Your task to perform on an android device: turn on priority inbox in the gmail app Image 0: 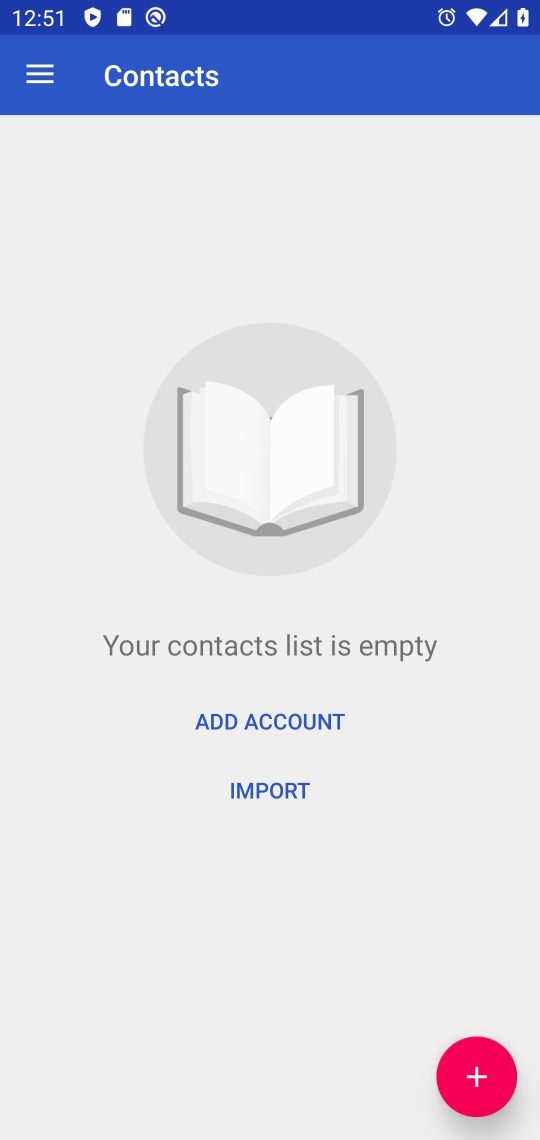
Step 0: press home button
Your task to perform on an android device: turn on priority inbox in the gmail app Image 1: 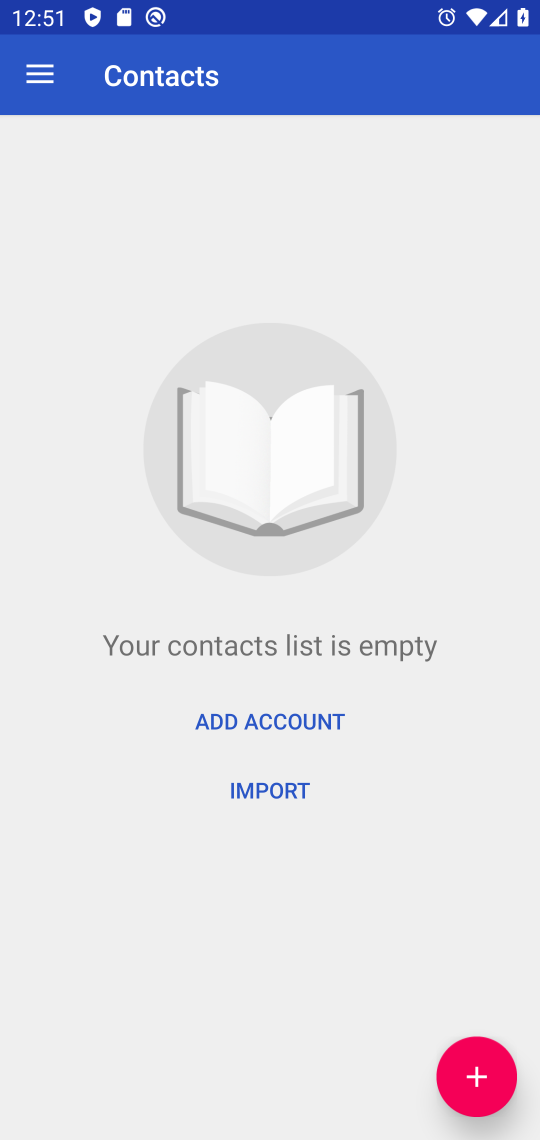
Step 1: press home button
Your task to perform on an android device: turn on priority inbox in the gmail app Image 2: 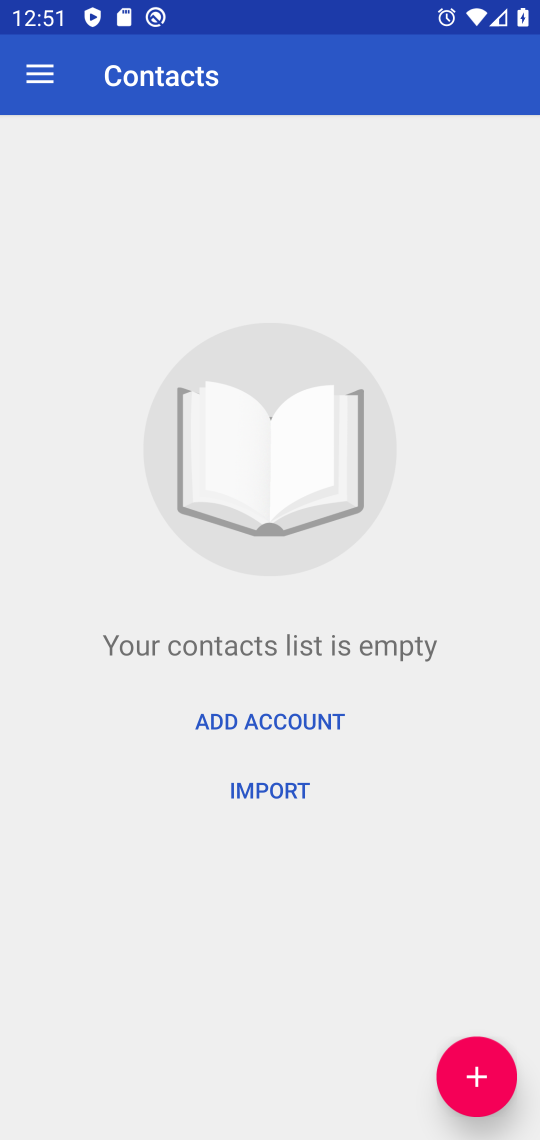
Step 2: click (318, 195)
Your task to perform on an android device: turn on priority inbox in the gmail app Image 3: 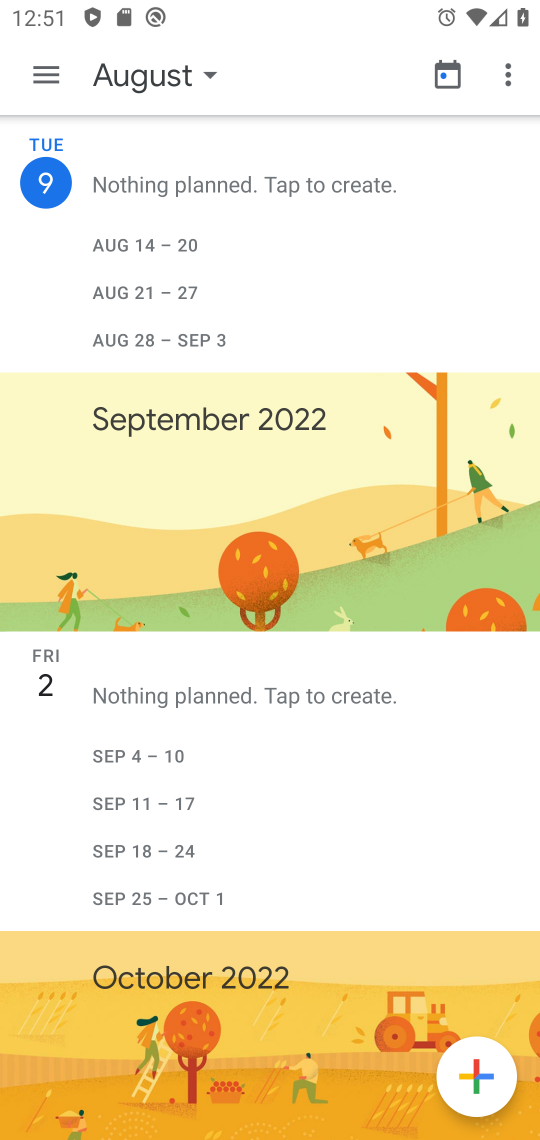
Step 3: press home button
Your task to perform on an android device: turn on priority inbox in the gmail app Image 4: 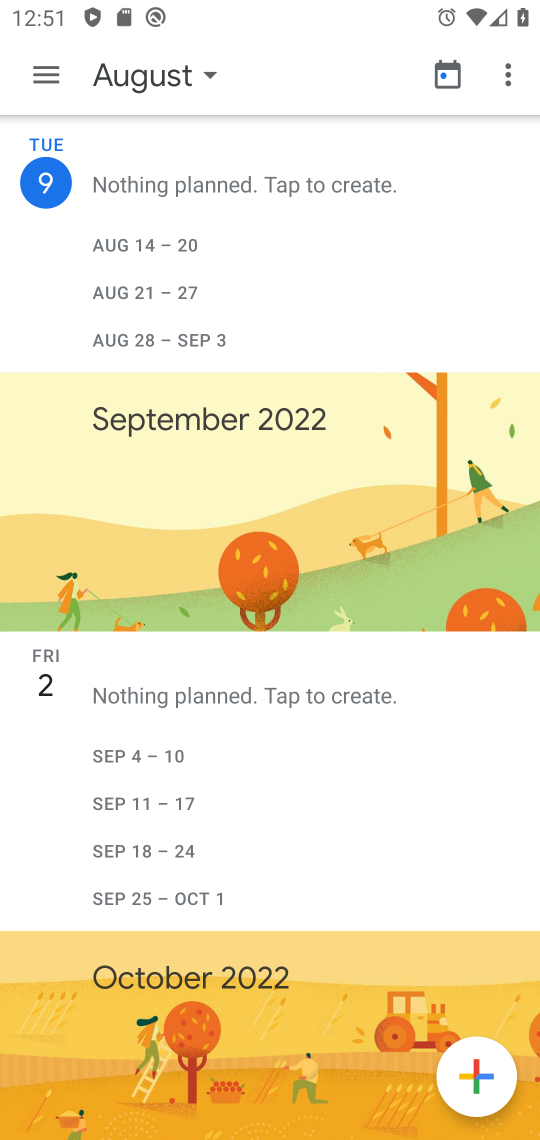
Step 4: drag from (221, 1001) to (331, 229)
Your task to perform on an android device: turn on priority inbox in the gmail app Image 5: 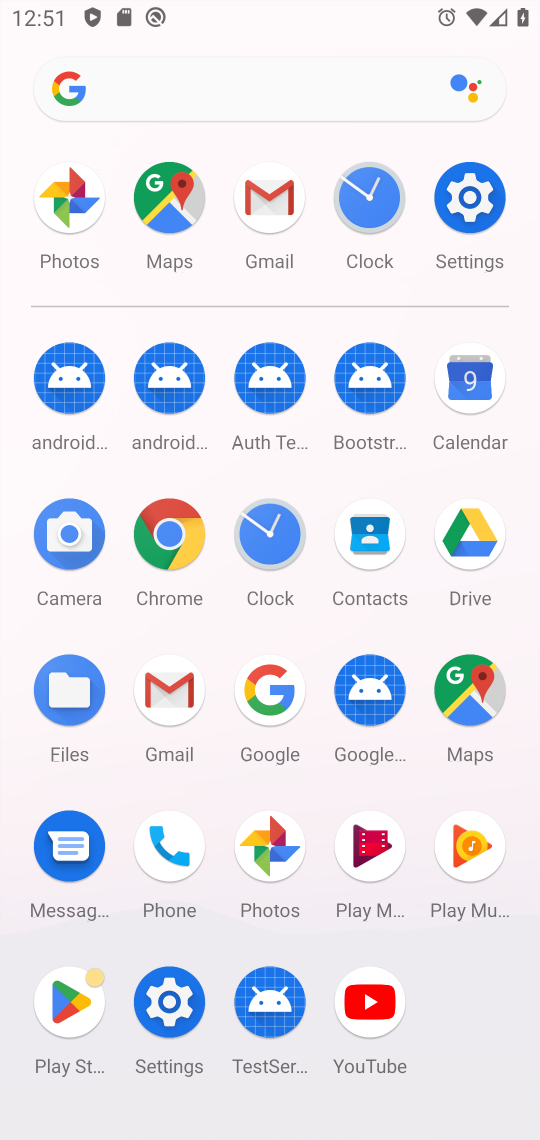
Step 5: drag from (272, 923) to (381, 148)
Your task to perform on an android device: turn on priority inbox in the gmail app Image 6: 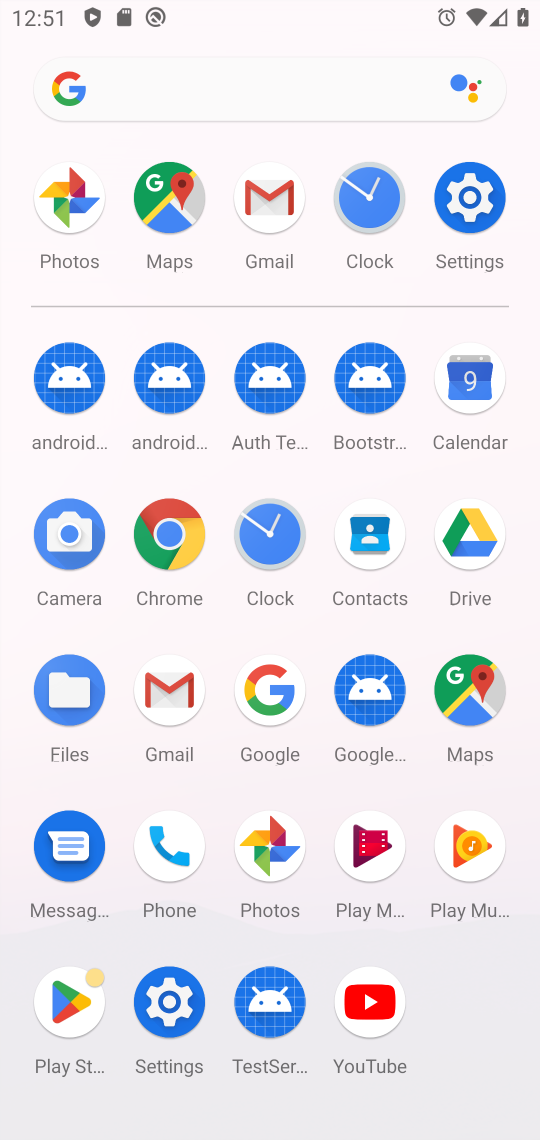
Step 6: click (171, 714)
Your task to perform on an android device: turn on priority inbox in the gmail app Image 7: 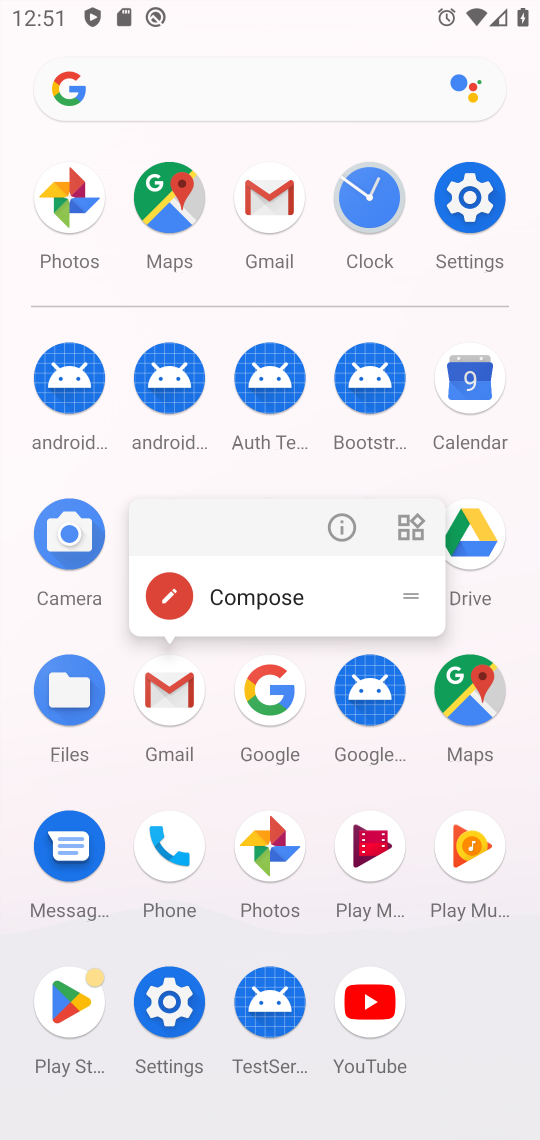
Step 7: click (331, 527)
Your task to perform on an android device: turn on priority inbox in the gmail app Image 8: 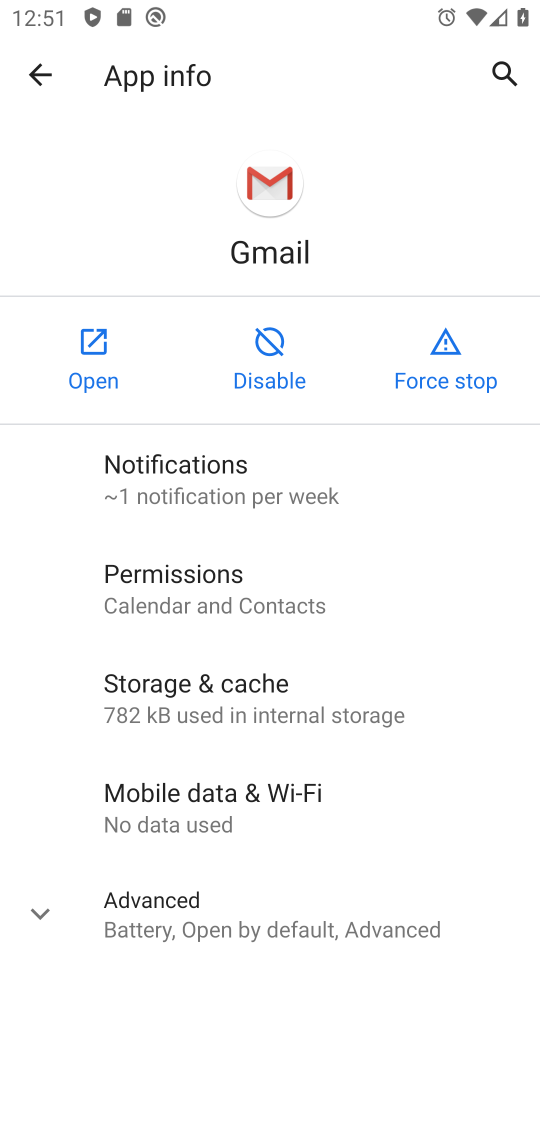
Step 8: click (79, 354)
Your task to perform on an android device: turn on priority inbox in the gmail app Image 9: 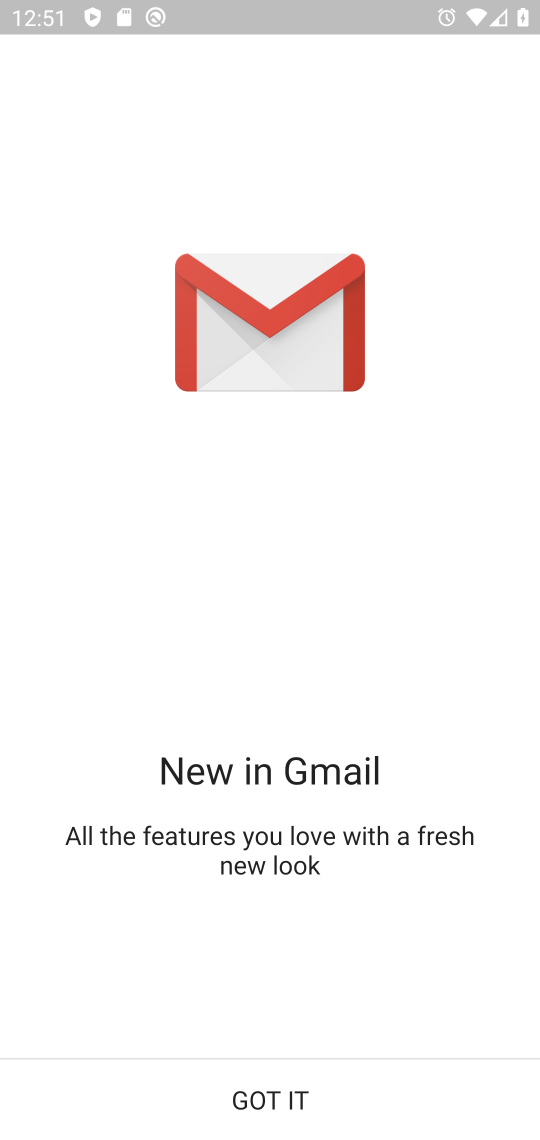
Step 9: click (304, 1117)
Your task to perform on an android device: turn on priority inbox in the gmail app Image 10: 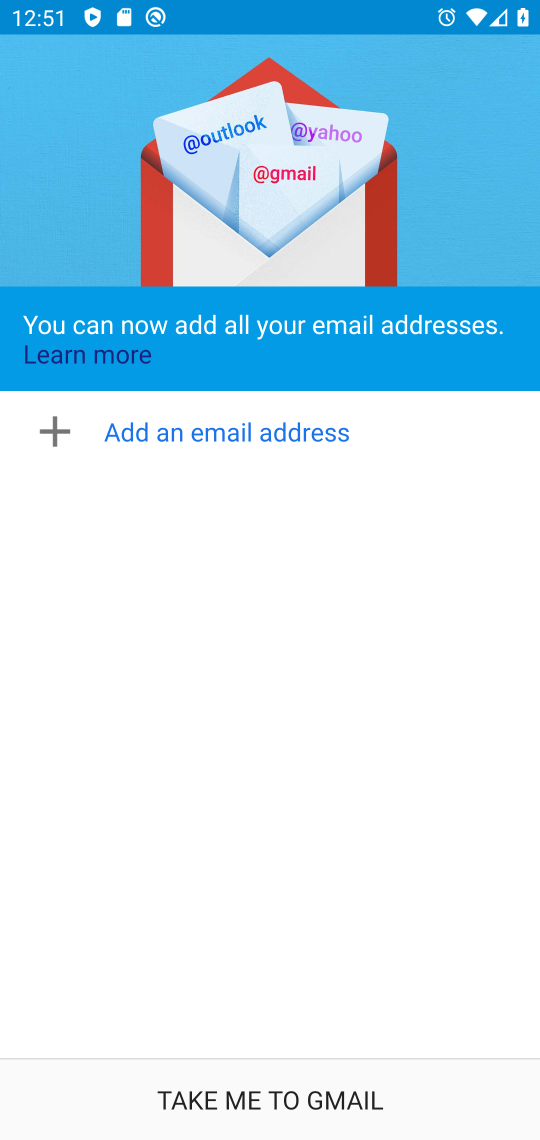
Step 10: click (272, 1091)
Your task to perform on an android device: turn on priority inbox in the gmail app Image 11: 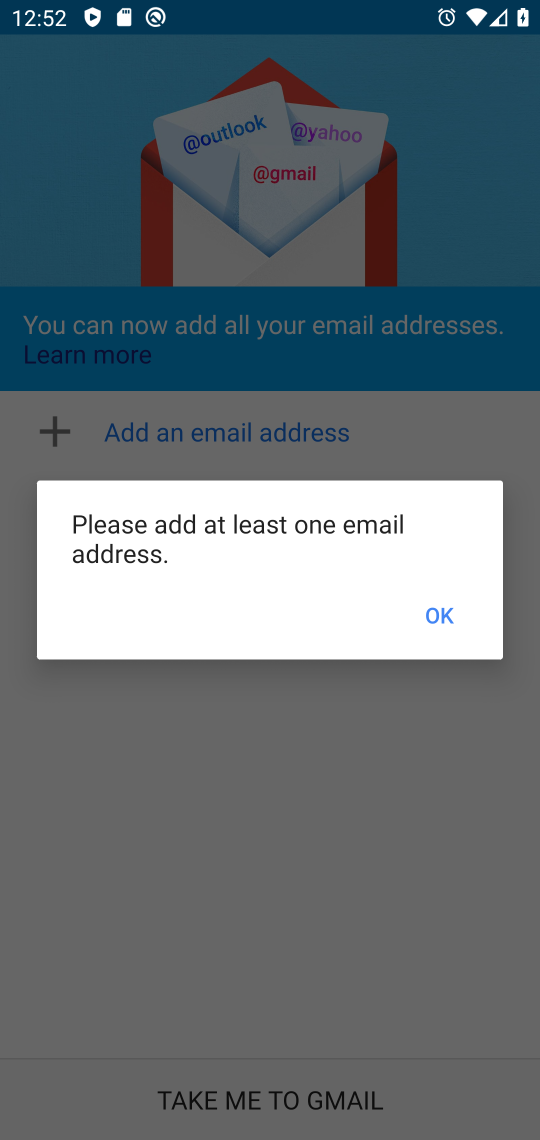
Step 11: click (446, 611)
Your task to perform on an android device: turn on priority inbox in the gmail app Image 12: 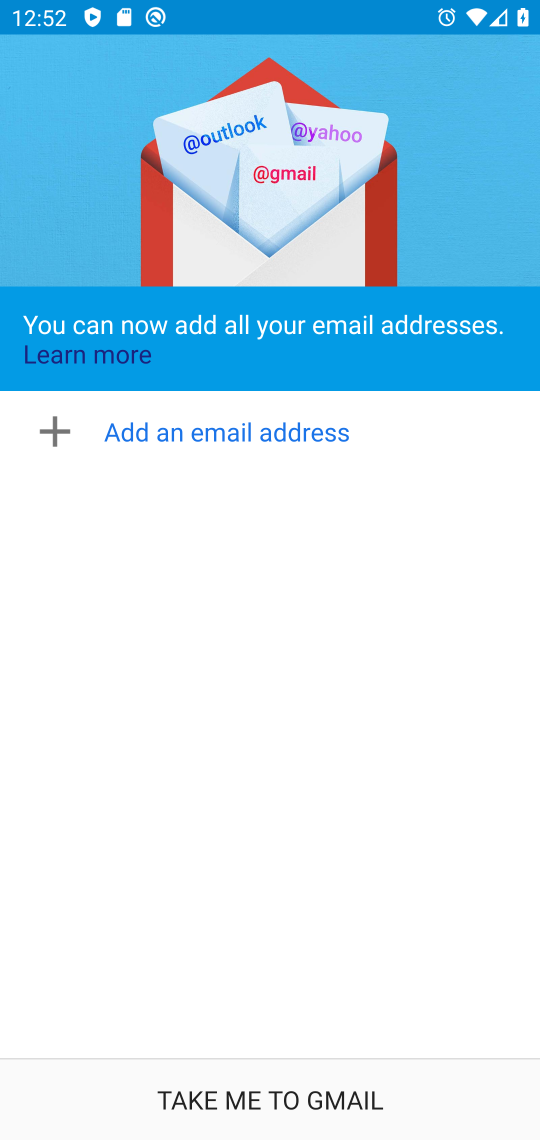
Step 12: click (228, 1092)
Your task to perform on an android device: turn on priority inbox in the gmail app Image 13: 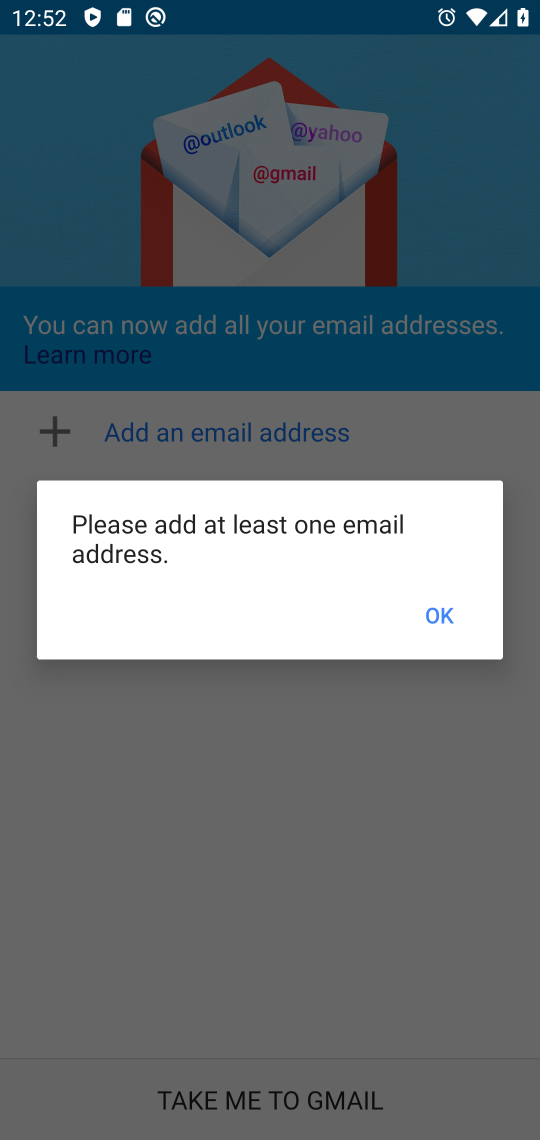
Step 13: click (411, 599)
Your task to perform on an android device: turn on priority inbox in the gmail app Image 14: 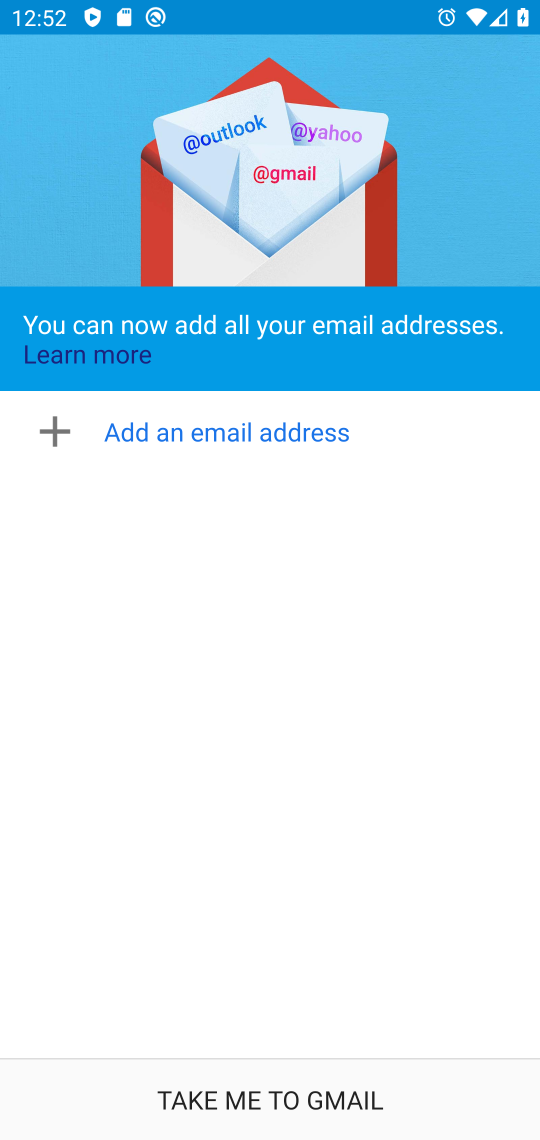
Step 14: click (255, 1110)
Your task to perform on an android device: turn on priority inbox in the gmail app Image 15: 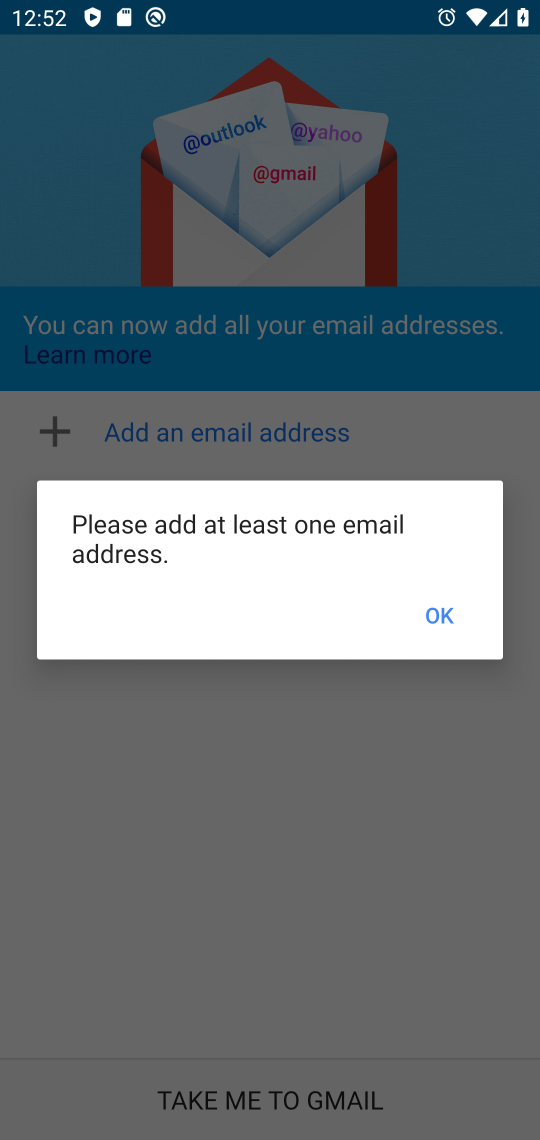
Step 15: click (419, 616)
Your task to perform on an android device: turn on priority inbox in the gmail app Image 16: 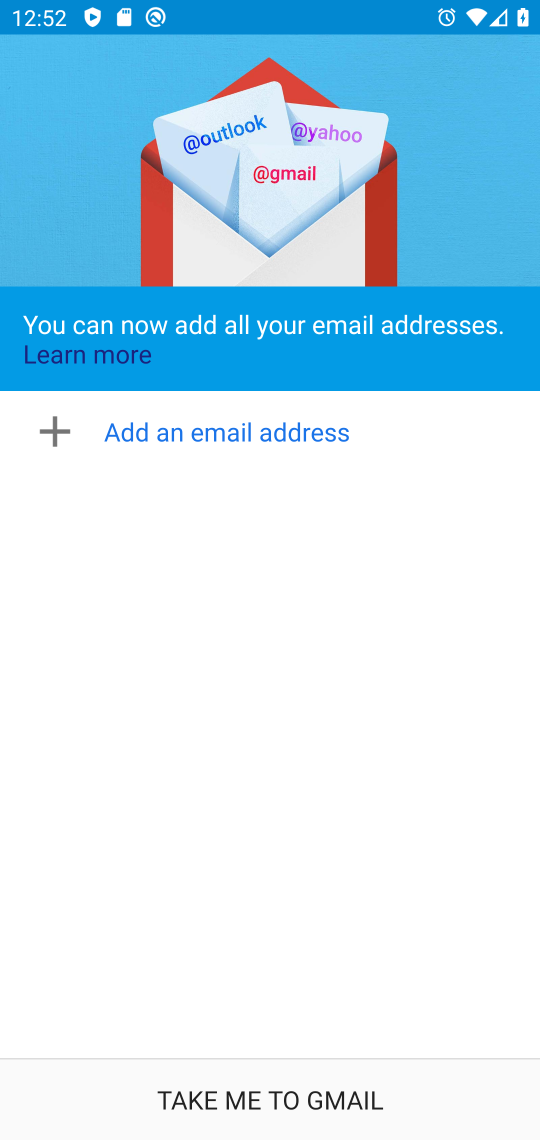
Step 16: drag from (287, 971) to (309, 679)
Your task to perform on an android device: turn on priority inbox in the gmail app Image 17: 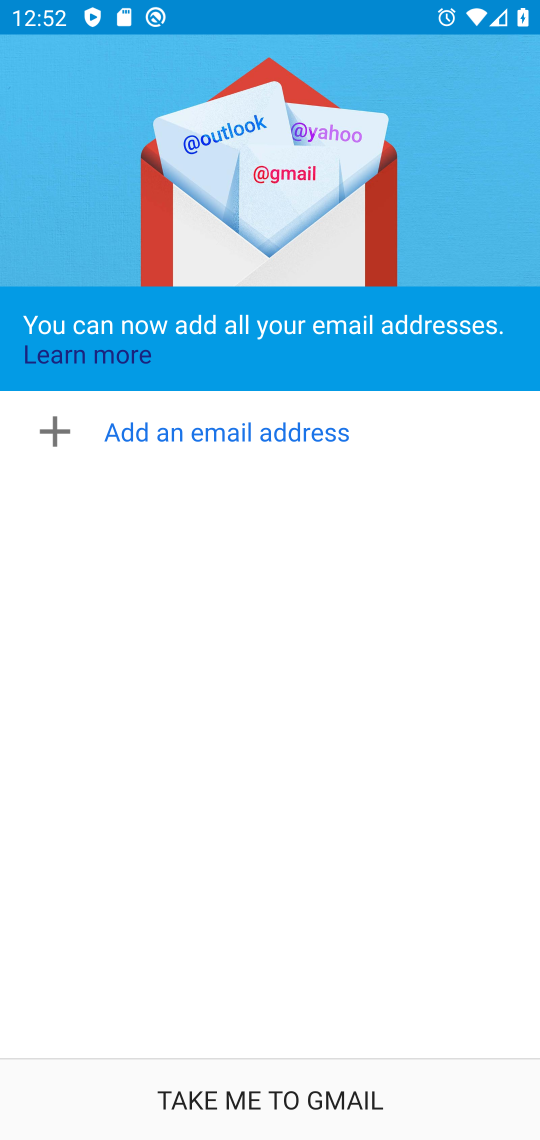
Step 17: drag from (321, 1024) to (416, 600)
Your task to perform on an android device: turn on priority inbox in the gmail app Image 18: 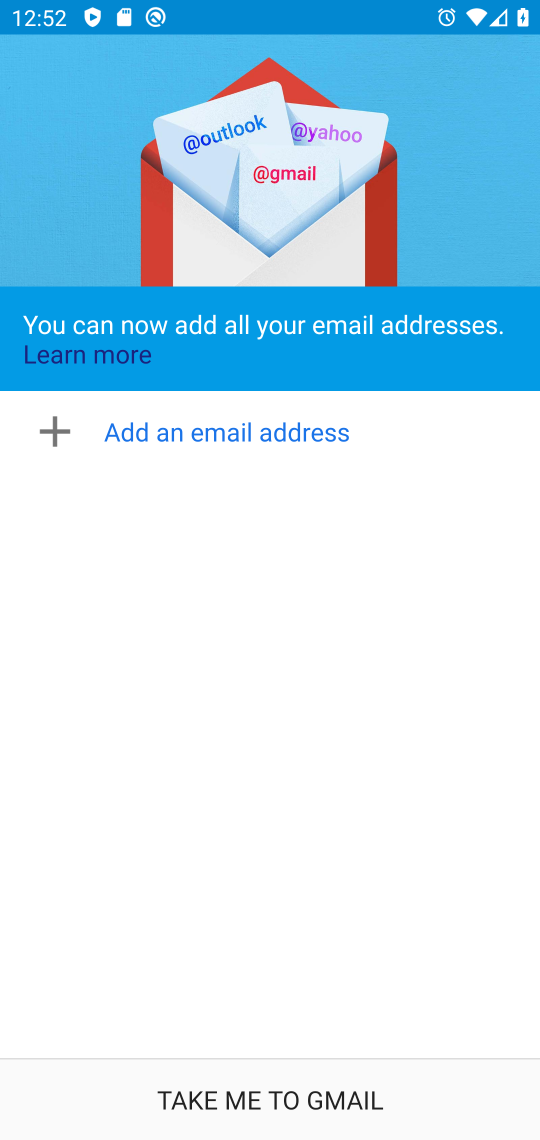
Step 18: click (273, 1089)
Your task to perform on an android device: turn on priority inbox in the gmail app Image 19: 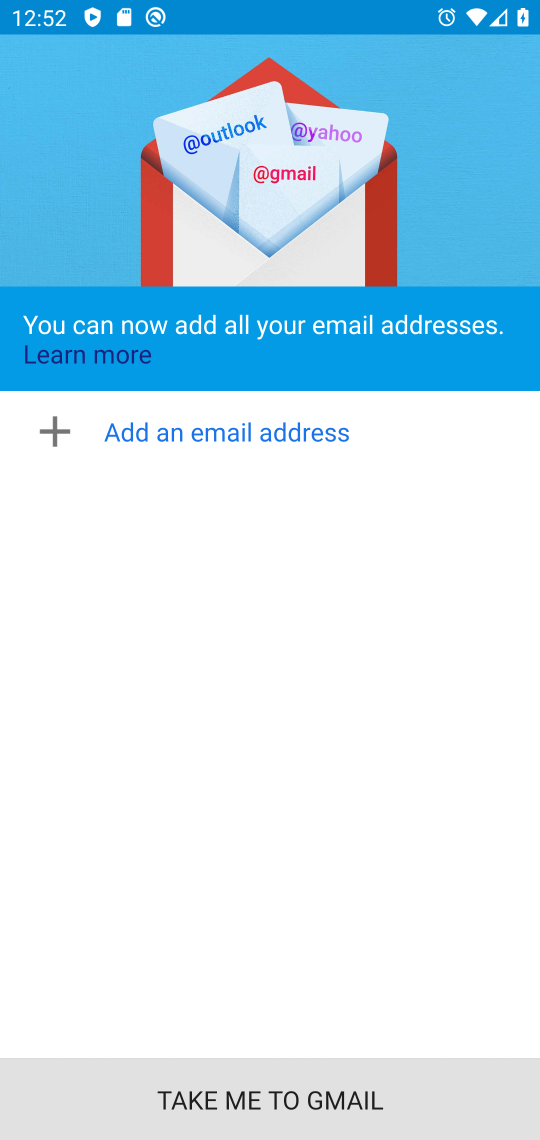
Step 19: drag from (329, 1014) to (533, 878)
Your task to perform on an android device: turn on priority inbox in the gmail app Image 20: 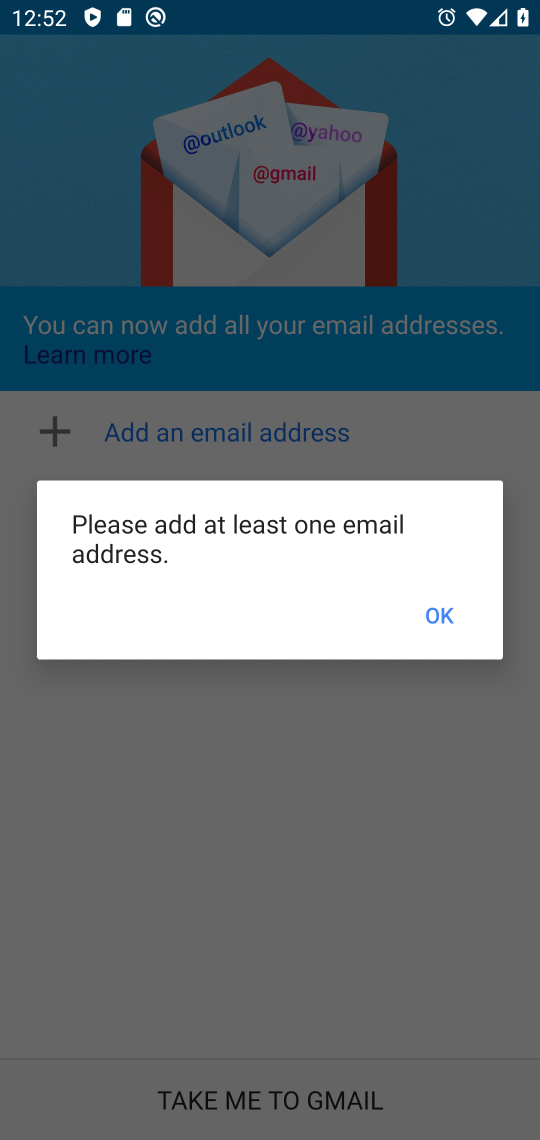
Step 20: click (438, 620)
Your task to perform on an android device: turn on priority inbox in the gmail app Image 21: 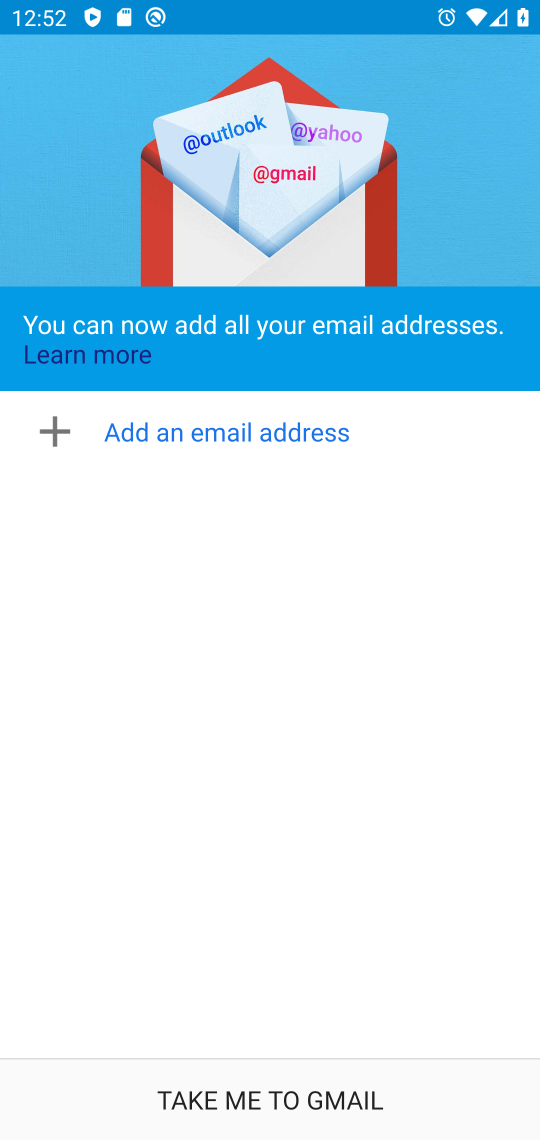
Step 21: click (521, 680)
Your task to perform on an android device: turn on priority inbox in the gmail app Image 22: 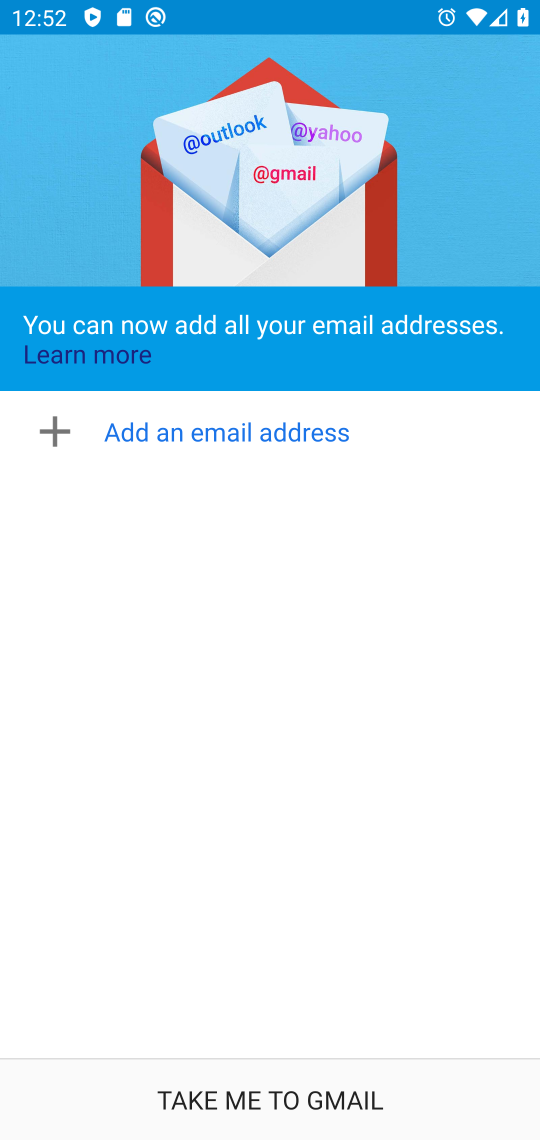
Step 22: task complete